Your task to perform on an android device: star an email in the gmail app Image 0: 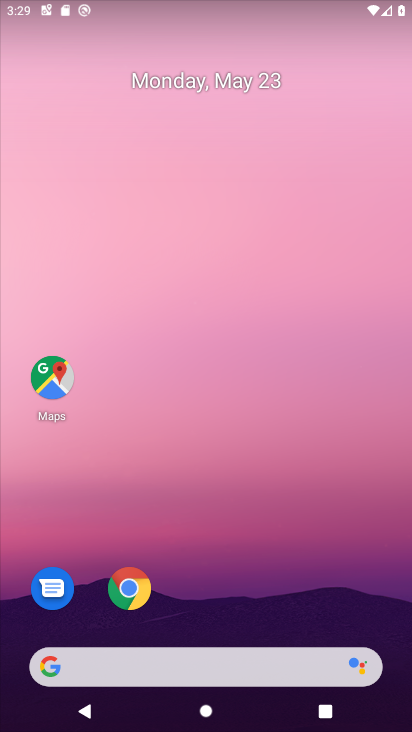
Step 0: drag from (181, 614) to (239, 68)
Your task to perform on an android device: star an email in the gmail app Image 1: 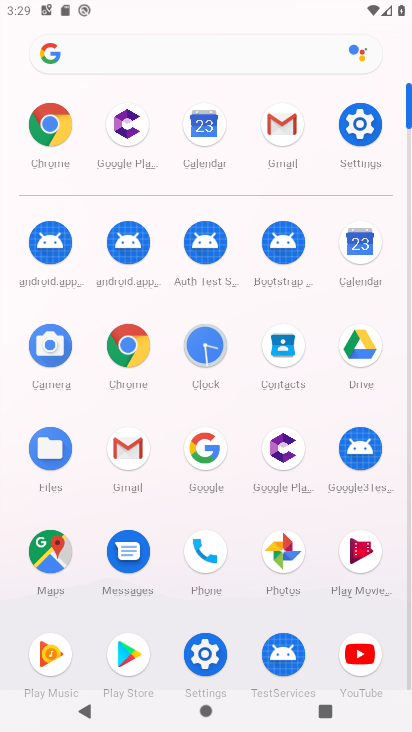
Step 1: click (127, 456)
Your task to perform on an android device: star an email in the gmail app Image 2: 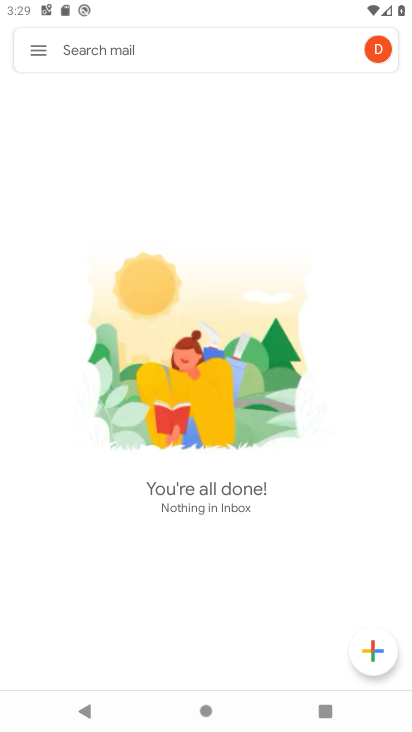
Step 2: task complete